Your task to perform on an android device: turn on improve location accuracy Image 0: 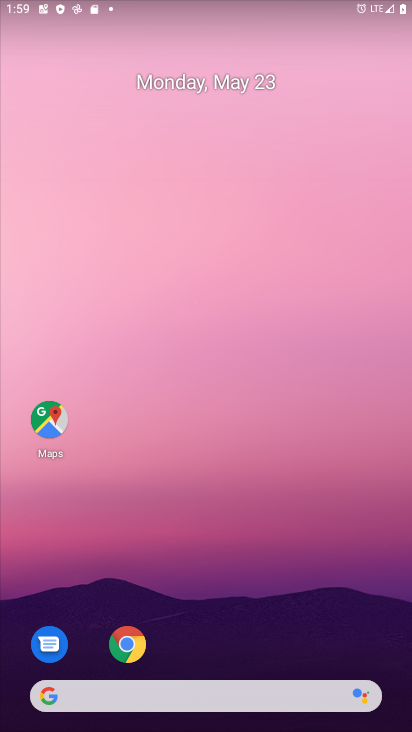
Step 0: drag from (356, 633) to (354, 43)
Your task to perform on an android device: turn on improve location accuracy Image 1: 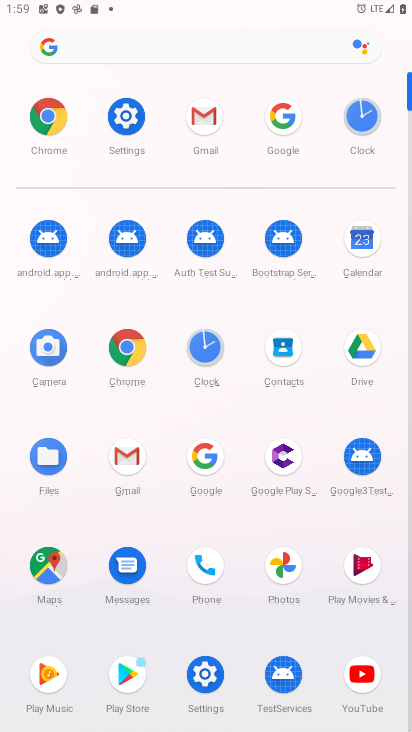
Step 1: click (188, 681)
Your task to perform on an android device: turn on improve location accuracy Image 2: 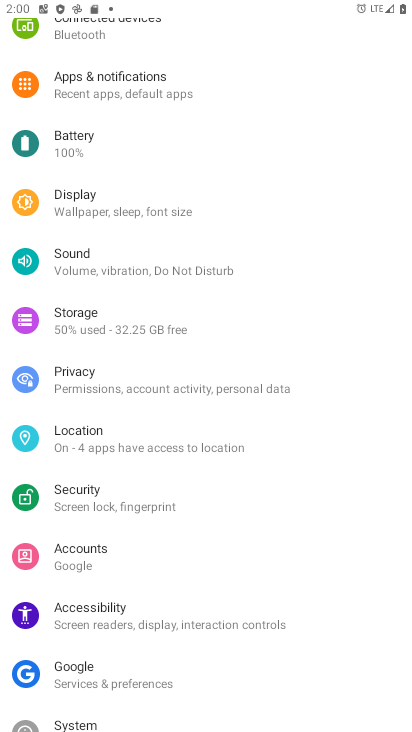
Step 2: click (113, 440)
Your task to perform on an android device: turn on improve location accuracy Image 3: 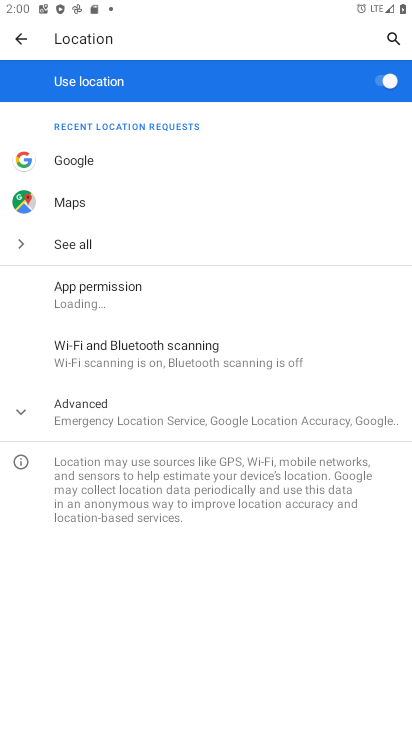
Step 3: click (88, 415)
Your task to perform on an android device: turn on improve location accuracy Image 4: 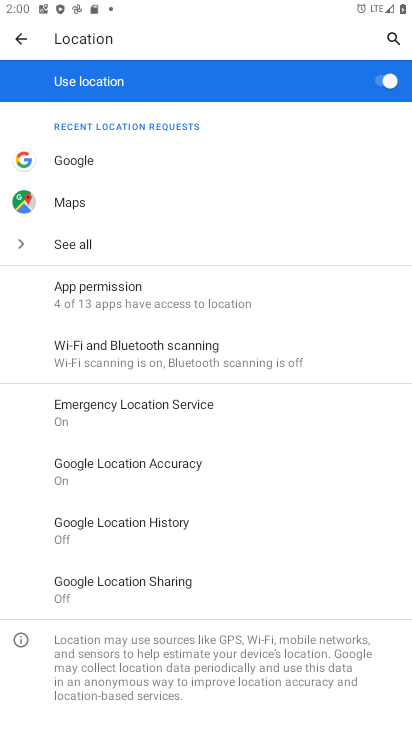
Step 4: click (158, 477)
Your task to perform on an android device: turn on improve location accuracy Image 5: 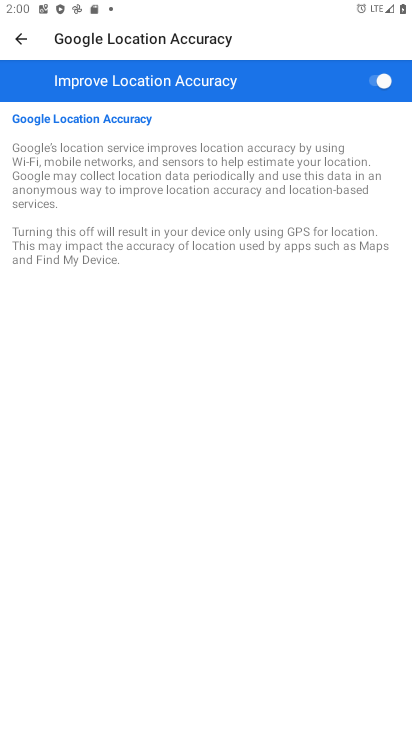
Step 5: task complete